Your task to perform on an android device: toggle show notifications on the lock screen Image 0: 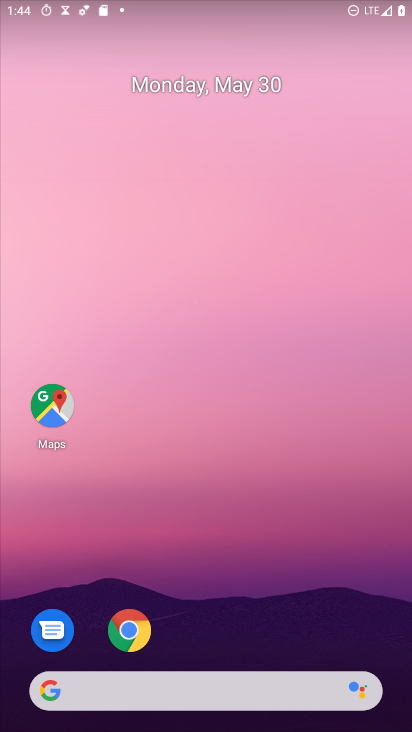
Step 0: drag from (302, 720) to (238, 112)
Your task to perform on an android device: toggle show notifications on the lock screen Image 1: 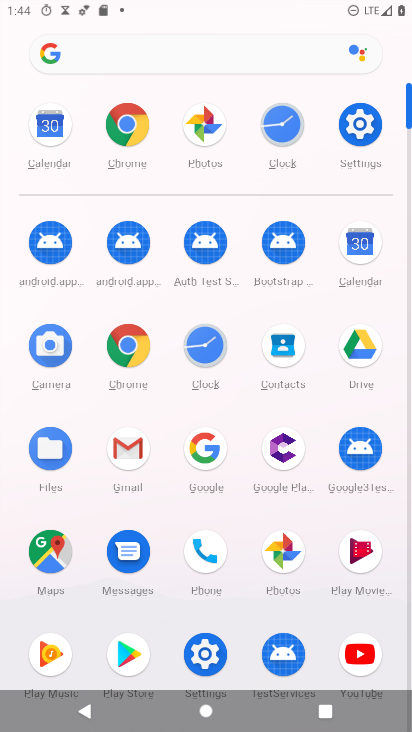
Step 1: click (350, 134)
Your task to perform on an android device: toggle show notifications on the lock screen Image 2: 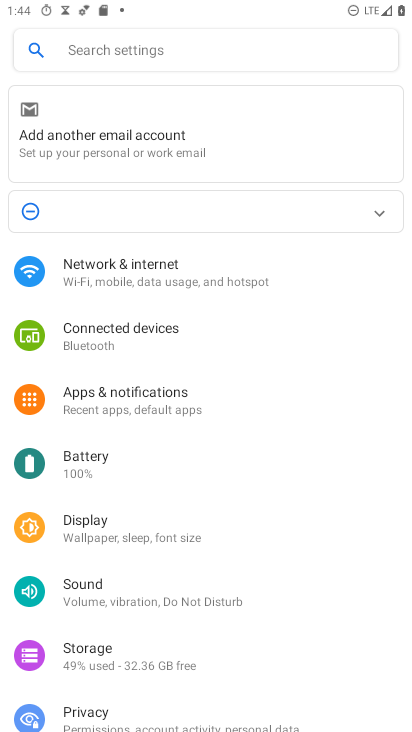
Step 2: click (171, 53)
Your task to perform on an android device: toggle show notifications on the lock screen Image 3: 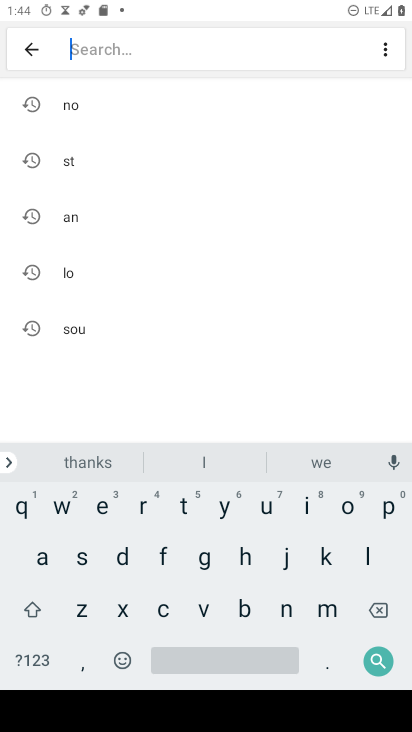
Step 3: click (90, 117)
Your task to perform on an android device: toggle show notifications on the lock screen Image 4: 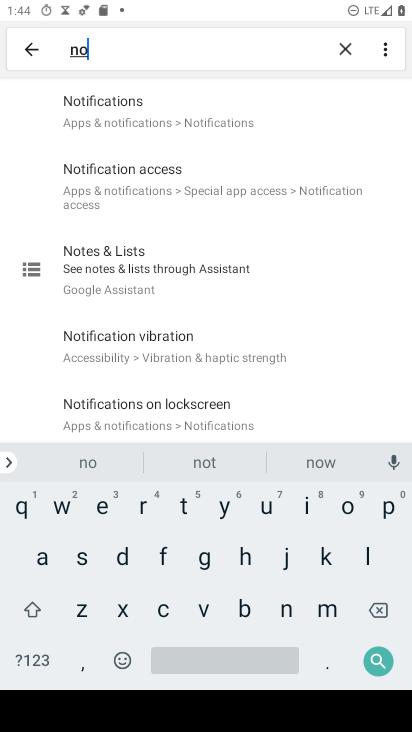
Step 4: click (109, 99)
Your task to perform on an android device: toggle show notifications on the lock screen Image 5: 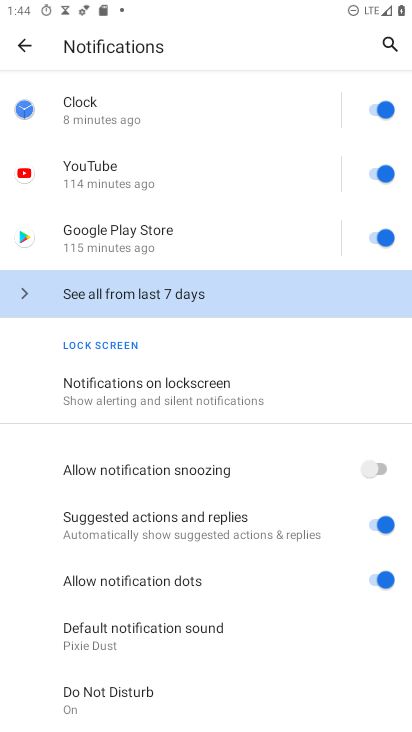
Step 5: click (162, 389)
Your task to perform on an android device: toggle show notifications on the lock screen Image 6: 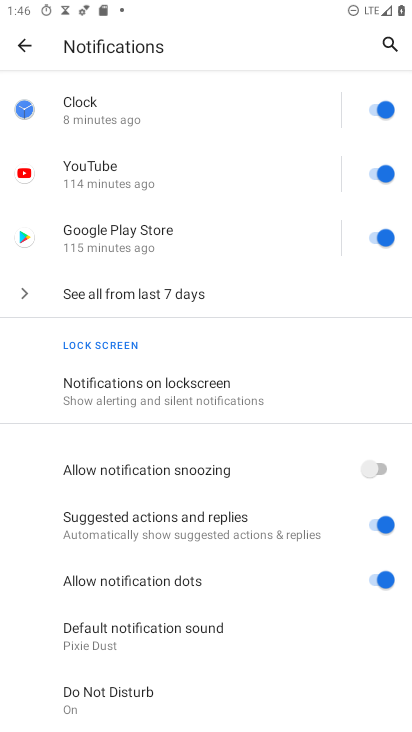
Step 6: task complete